Your task to perform on an android device: change the upload size in google photos Image 0: 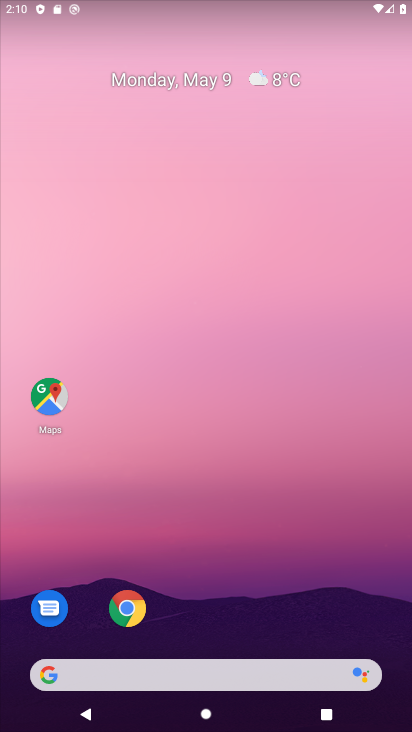
Step 0: drag from (177, 408) to (181, 334)
Your task to perform on an android device: change the upload size in google photos Image 1: 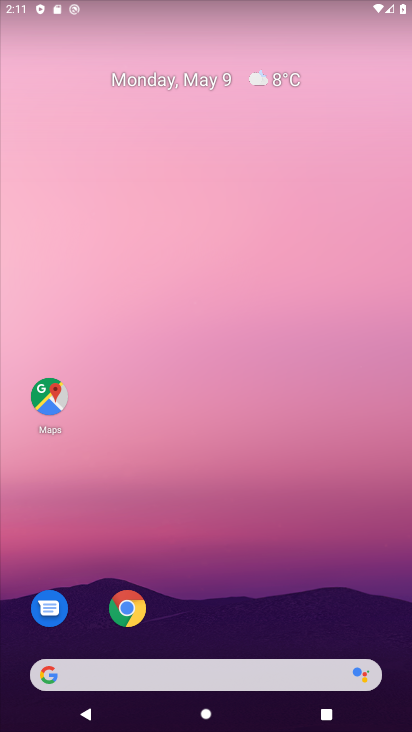
Step 1: drag from (158, 626) to (178, 361)
Your task to perform on an android device: change the upload size in google photos Image 2: 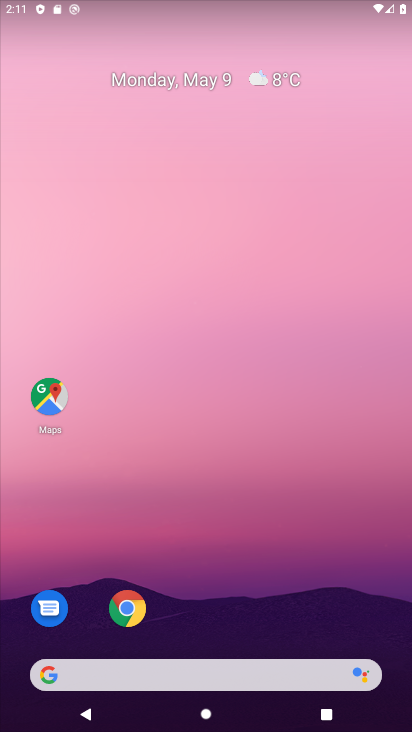
Step 2: drag from (221, 622) to (289, 291)
Your task to perform on an android device: change the upload size in google photos Image 3: 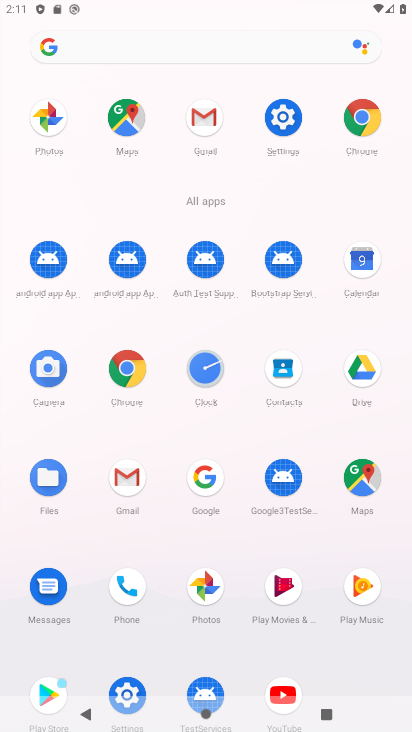
Step 3: click (205, 591)
Your task to perform on an android device: change the upload size in google photos Image 4: 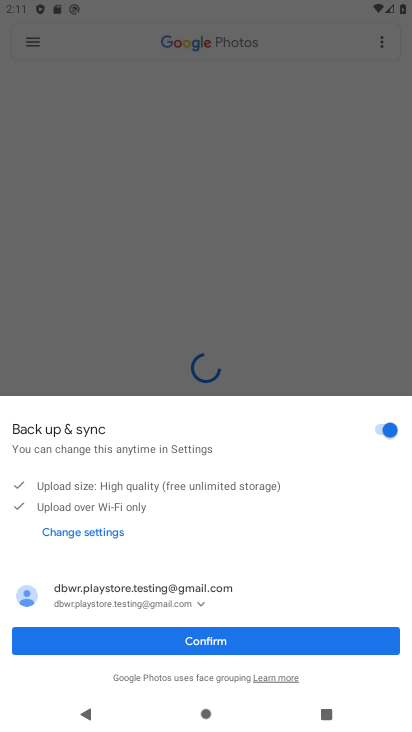
Step 4: click (216, 638)
Your task to perform on an android device: change the upload size in google photos Image 5: 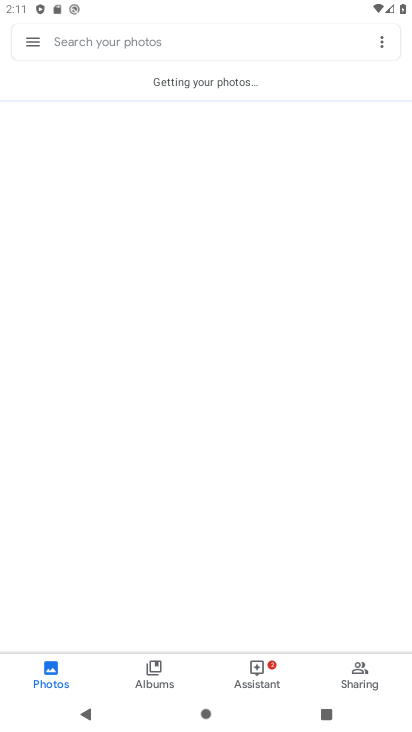
Step 5: click (32, 38)
Your task to perform on an android device: change the upload size in google photos Image 6: 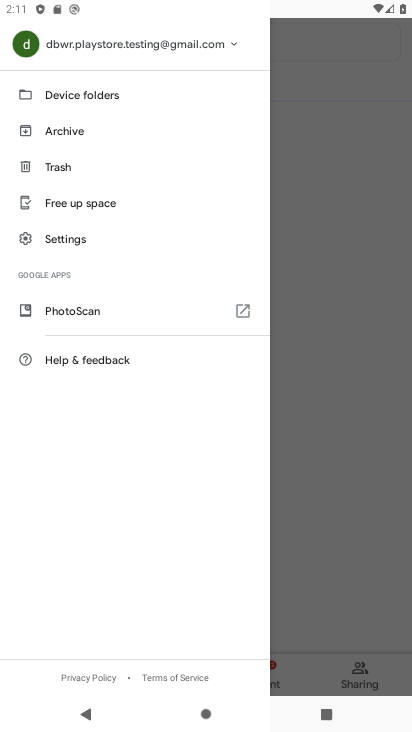
Step 6: click (86, 238)
Your task to perform on an android device: change the upload size in google photos Image 7: 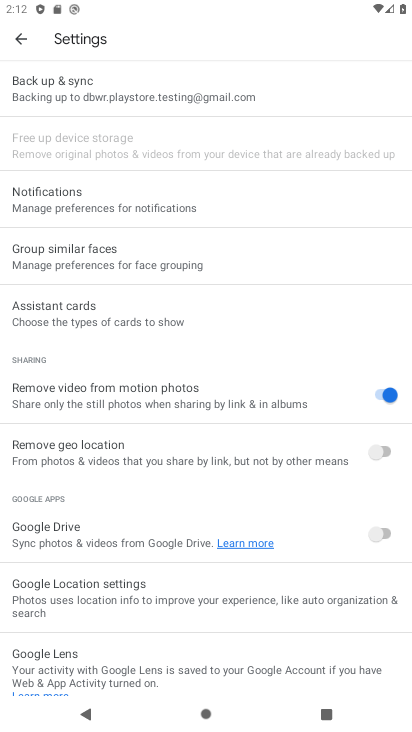
Step 7: click (110, 94)
Your task to perform on an android device: change the upload size in google photos Image 8: 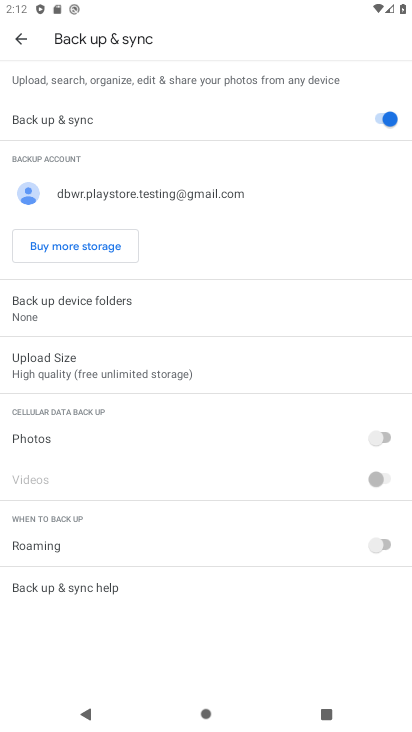
Step 8: click (139, 369)
Your task to perform on an android device: change the upload size in google photos Image 9: 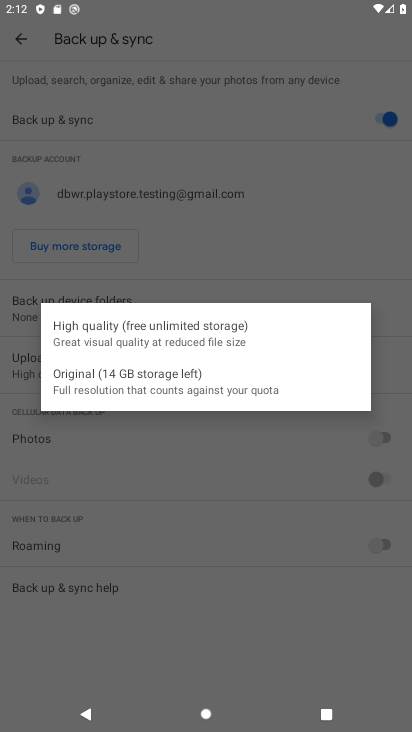
Step 9: click (146, 382)
Your task to perform on an android device: change the upload size in google photos Image 10: 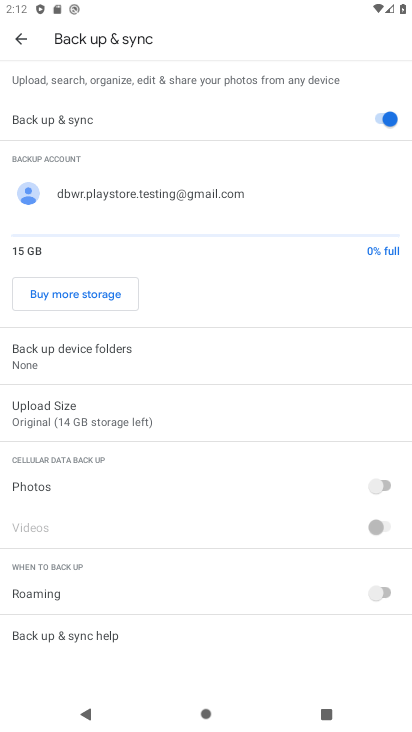
Step 10: task complete